Your task to perform on an android device: visit the assistant section in the google photos Image 0: 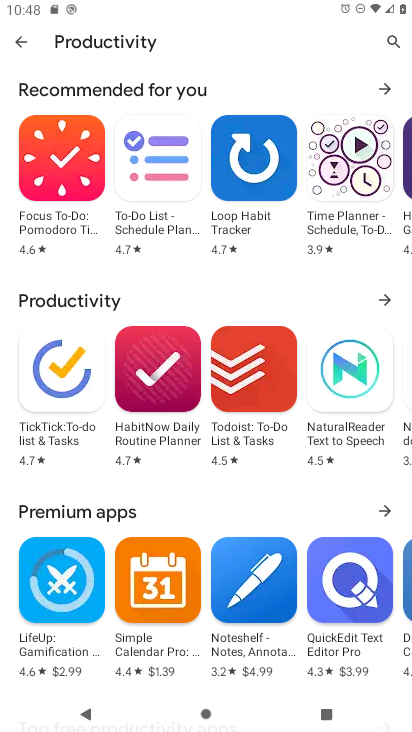
Step 0: press home button
Your task to perform on an android device: visit the assistant section in the google photos Image 1: 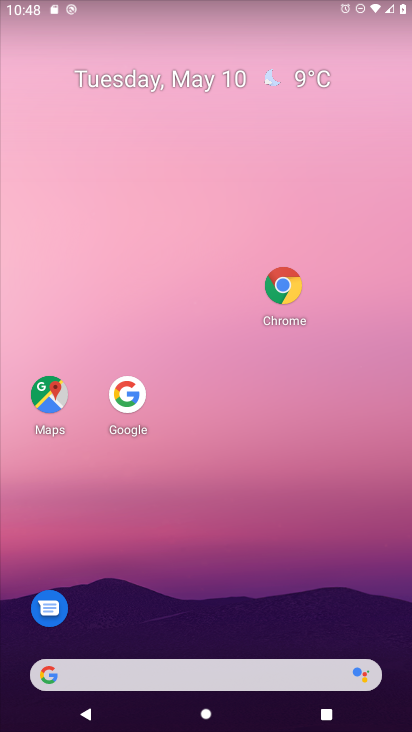
Step 1: drag from (177, 675) to (296, 162)
Your task to perform on an android device: visit the assistant section in the google photos Image 2: 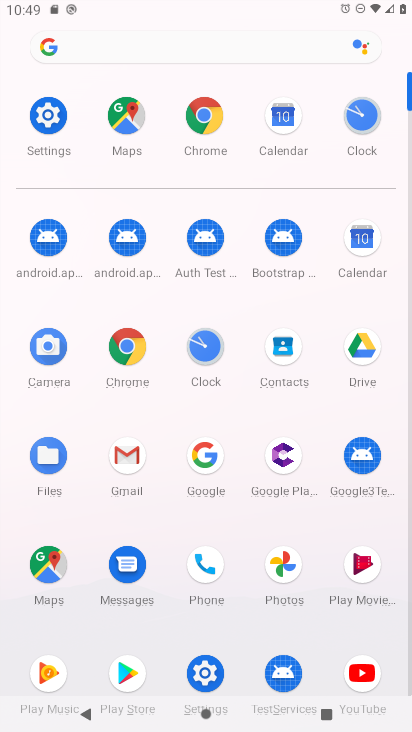
Step 2: click (281, 559)
Your task to perform on an android device: visit the assistant section in the google photos Image 3: 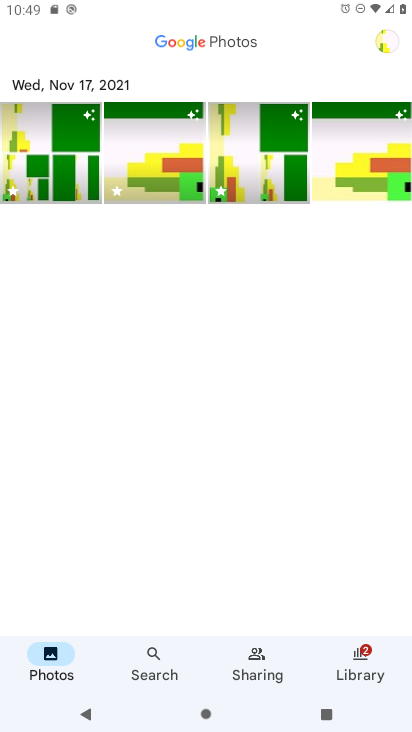
Step 3: click (155, 656)
Your task to perform on an android device: visit the assistant section in the google photos Image 4: 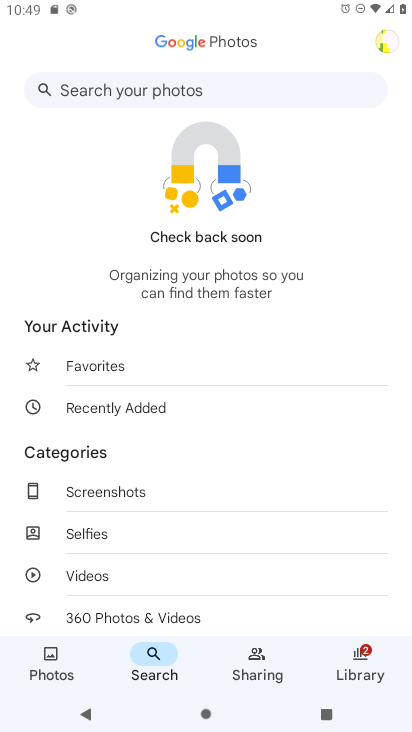
Step 4: task complete